Your task to perform on an android device: change alarm snooze length Image 0: 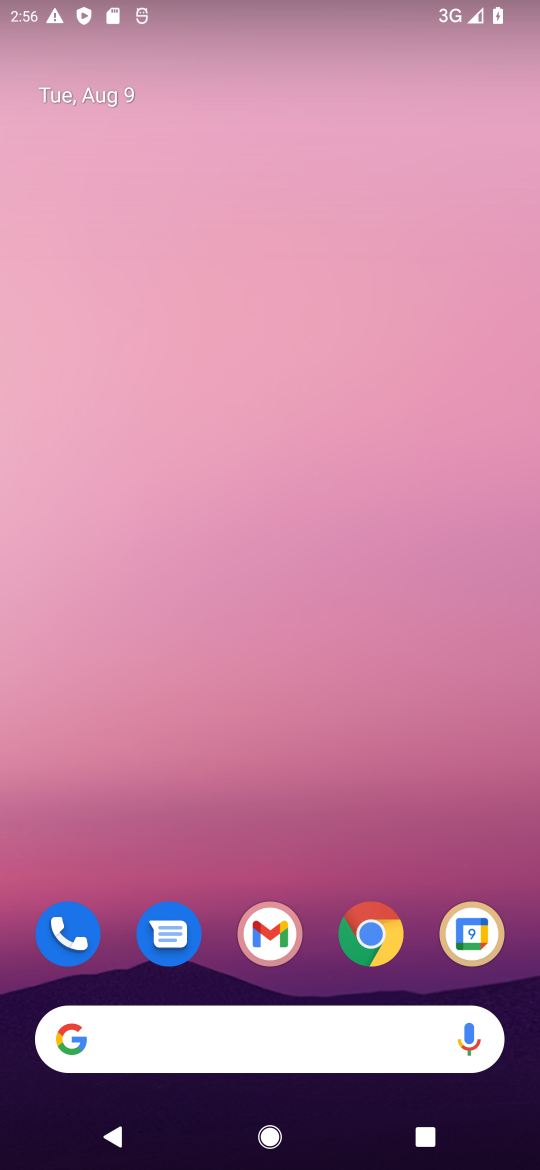
Step 0: drag from (302, 969) to (377, 78)
Your task to perform on an android device: change alarm snooze length Image 1: 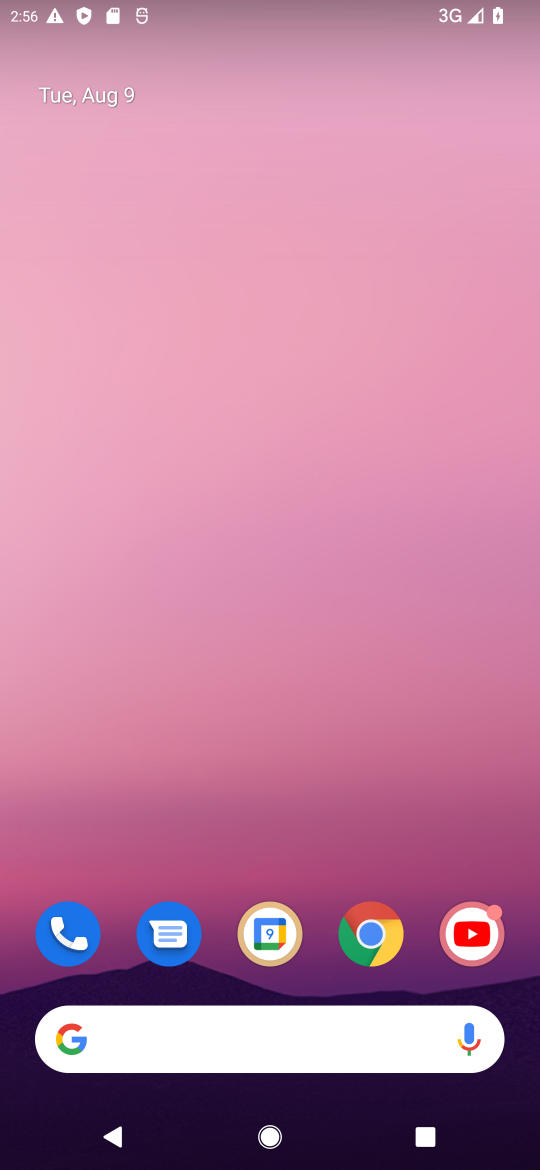
Step 1: task complete